Your task to perform on an android device: toggle notifications settings in the gmail app Image 0: 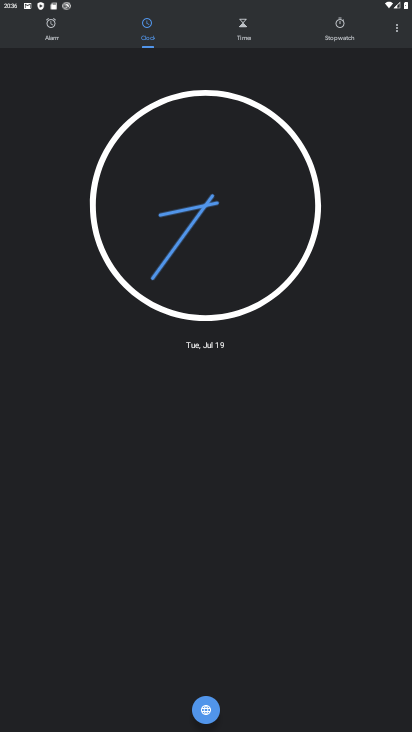
Step 0: press home button
Your task to perform on an android device: toggle notifications settings in the gmail app Image 1: 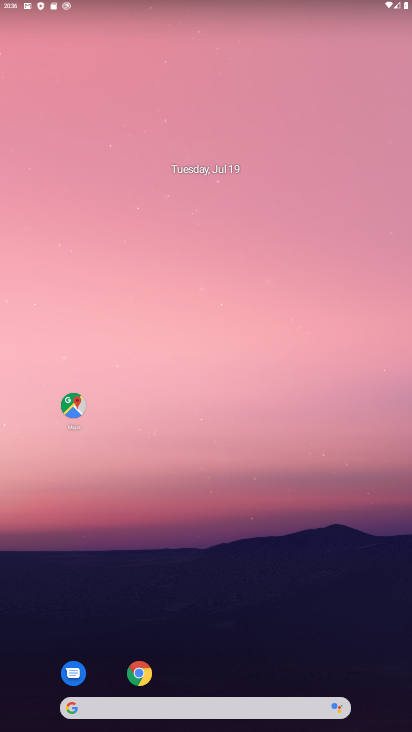
Step 1: drag from (217, 676) to (110, 25)
Your task to perform on an android device: toggle notifications settings in the gmail app Image 2: 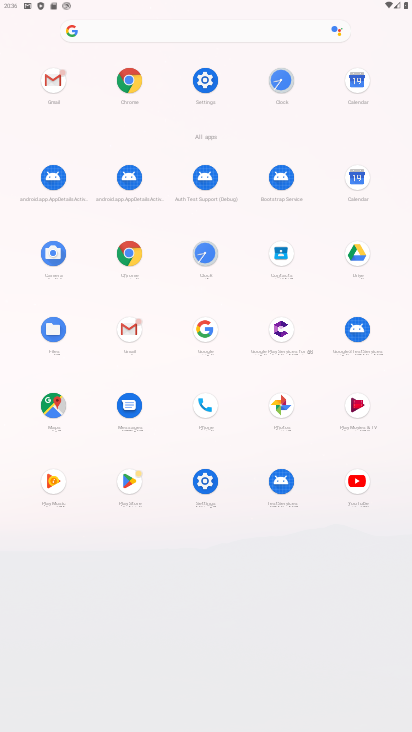
Step 2: click (130, 335)
Your task to perform on an android device: toggle notifications settings in the gmail app Image 3: 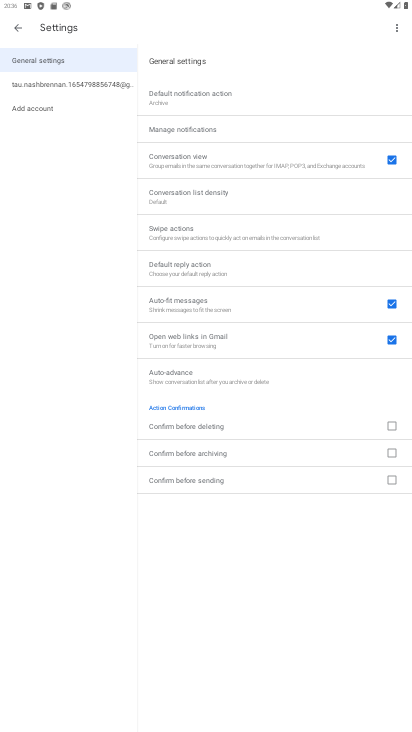
Step 3: click (193, 129)
Your task to perform on an android device: toggle notifications settings in the gmail app Image 4: 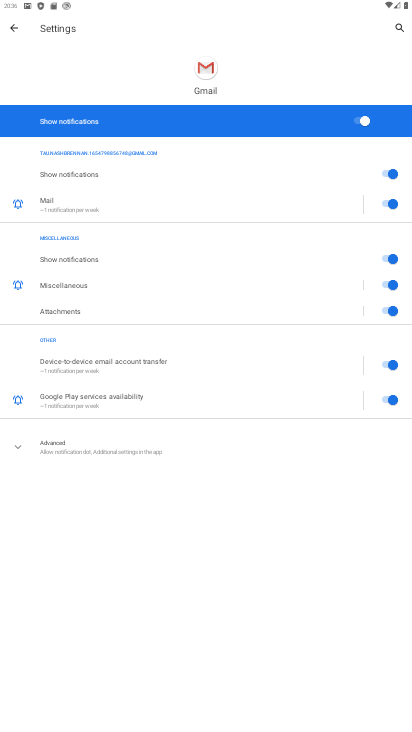
Step 4: click (345, 127)
Your task to perform on an android device: toggle notifications settings in the gmail app Image 5: 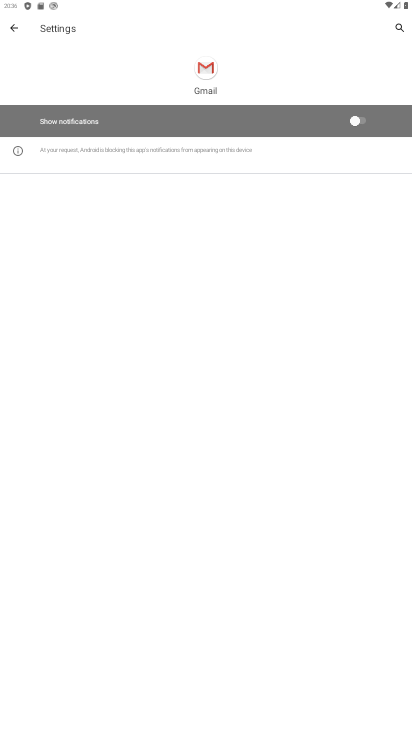
Step 5: task complete